Your task to perform on an android device: check the backup settings in the google photos Image 0: 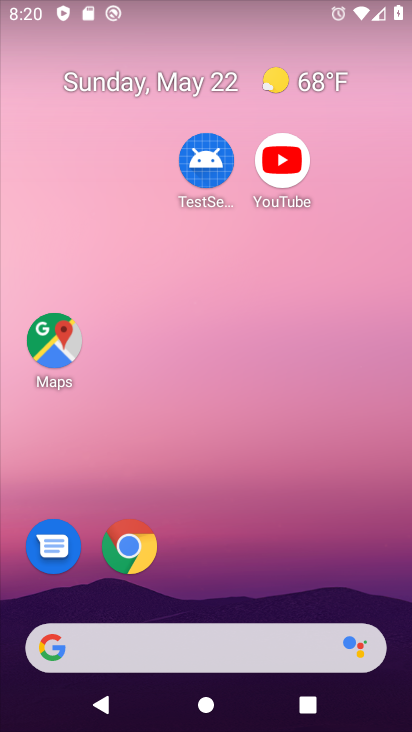
Step 0: drag from (232, 636) to (149, 209)
Your task to perform on an android device: check the backup settings in the google photos Image 1: 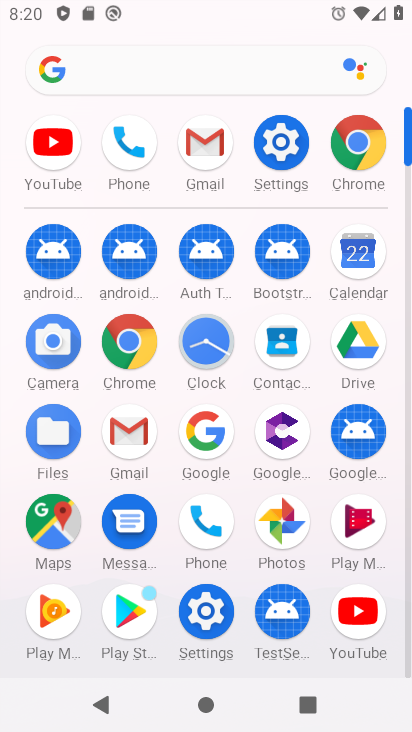
Step 1: click (283, 522)
Your task to perform on an android device: check the backup settings in the google photos Image 2: 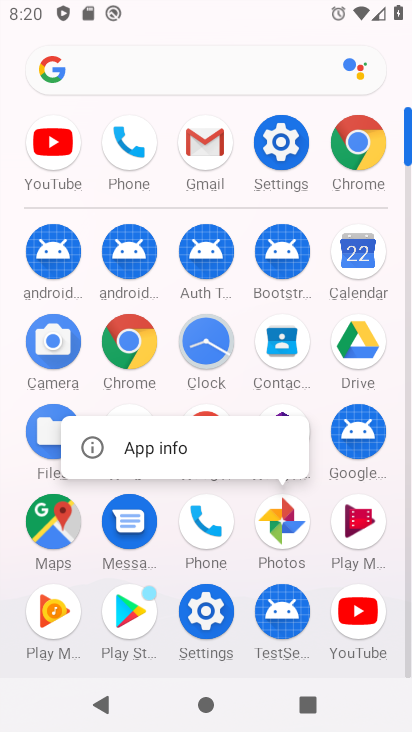
Step 2: click (265, 537)
Your task to perform on an android device: check the backup settings in the google photos Image 3: 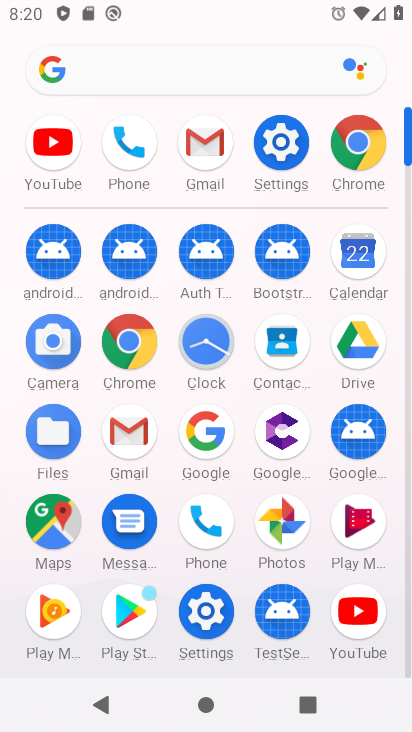
Step 3: click (269, 536)
Your task to perform on an android device: check the backup settings in the google photos Image 4: 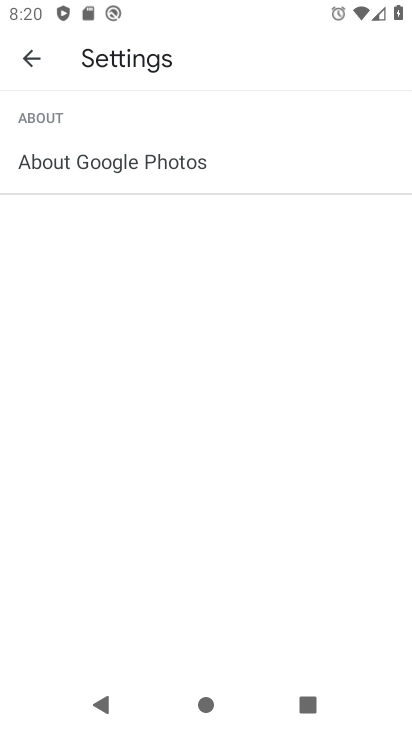
Step 4: click (284, 512)
Your task to perform on an android device: check the backup settings in the google photos Image 5: 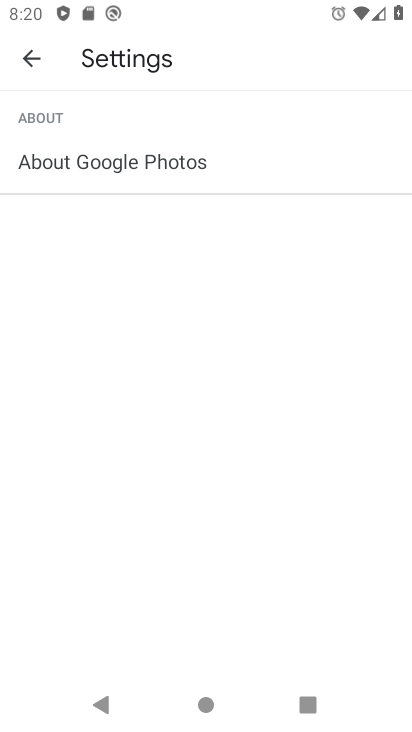
Step 5: click (25, 54)
Your task to perform on an android device: check the backup settings in the google photos Image 6: 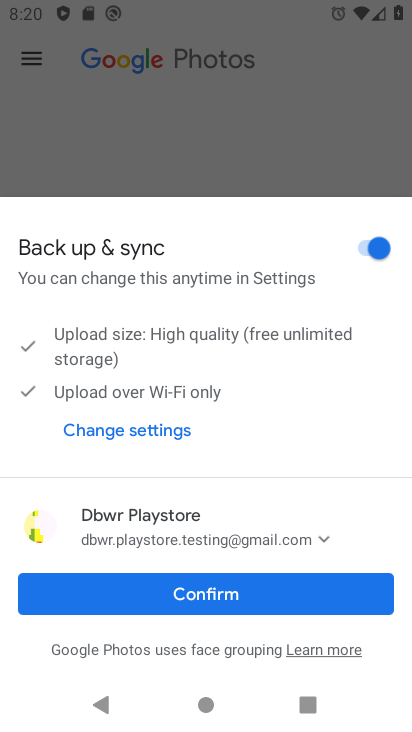
Step 6: click (241, 599)
Your task to perform on an android device: check the backup settings in the google photos Image 7: 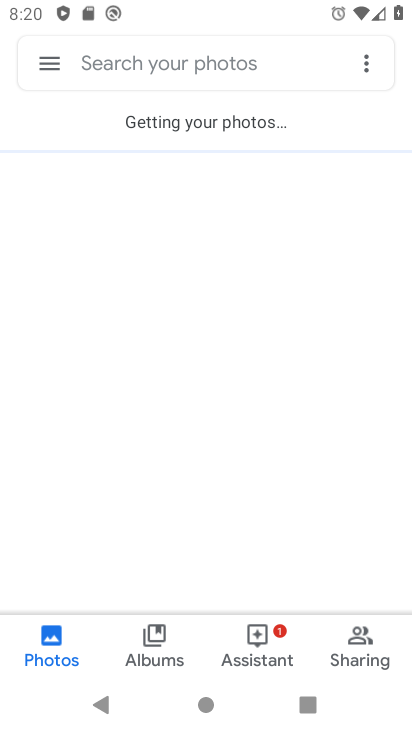
Step 7: task complete